Your task to perform on an android device: turn off data saver in the chrome app Image 0: 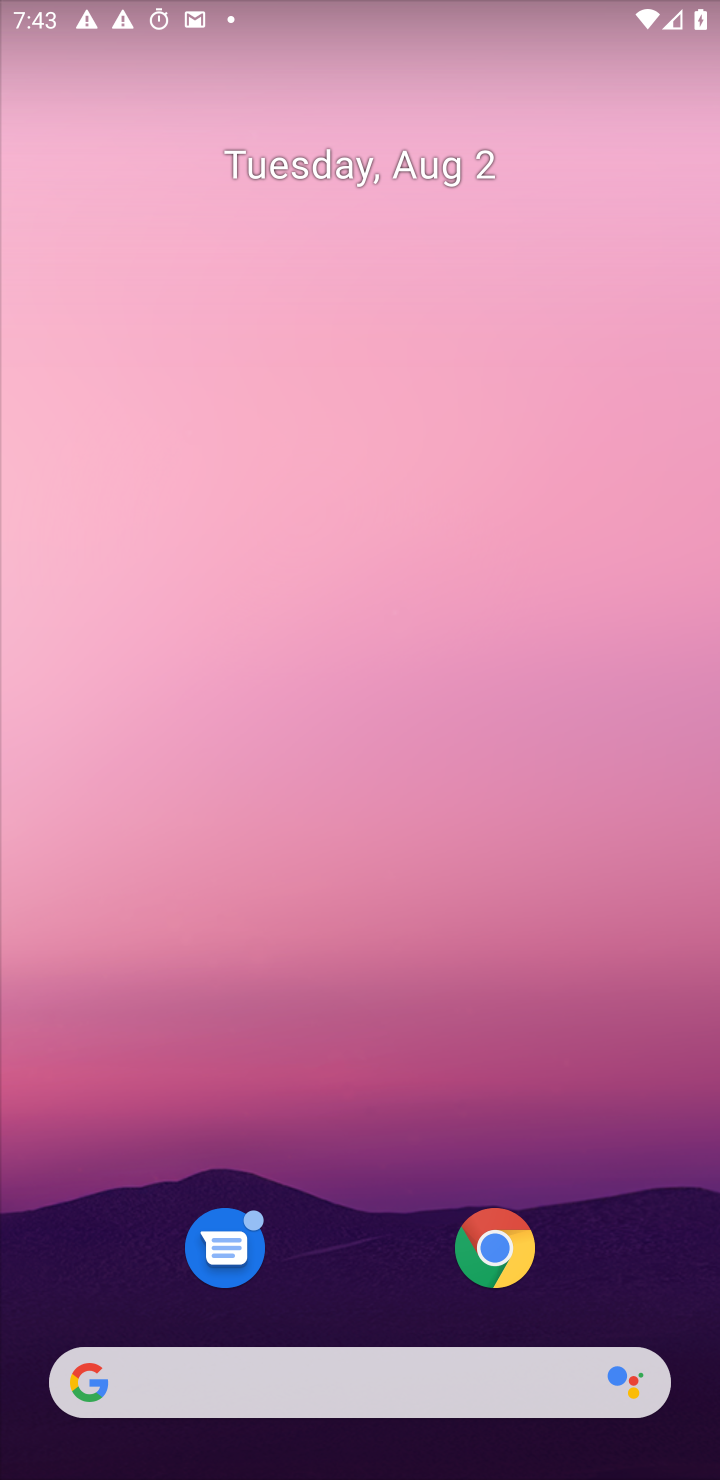
Step 0: press home button
Your task to perform on an android device: turn off data saver in the chrome app Image 1: 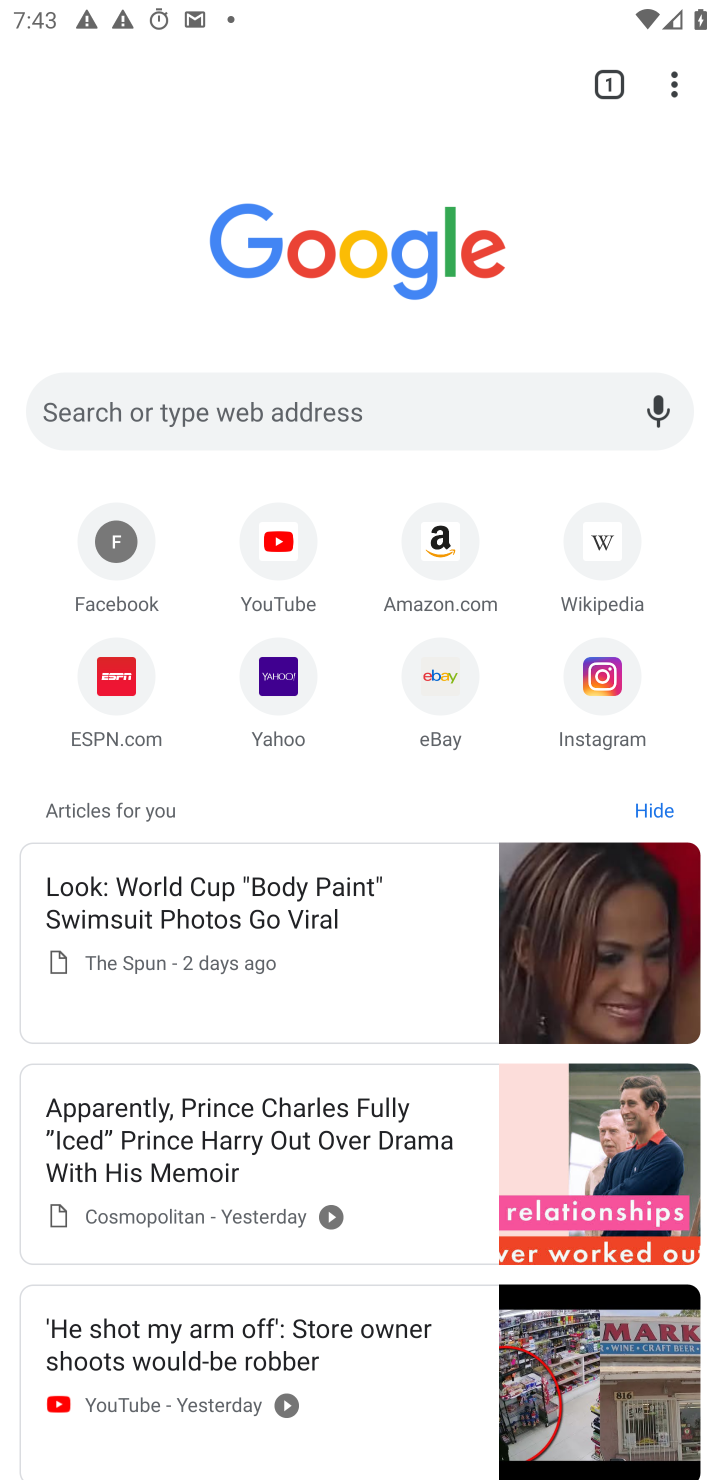
Step 1: drag from (524, 450) to (647, 75)
Your task to perform on an android device: turn off data saver in the chrome app Image 2: 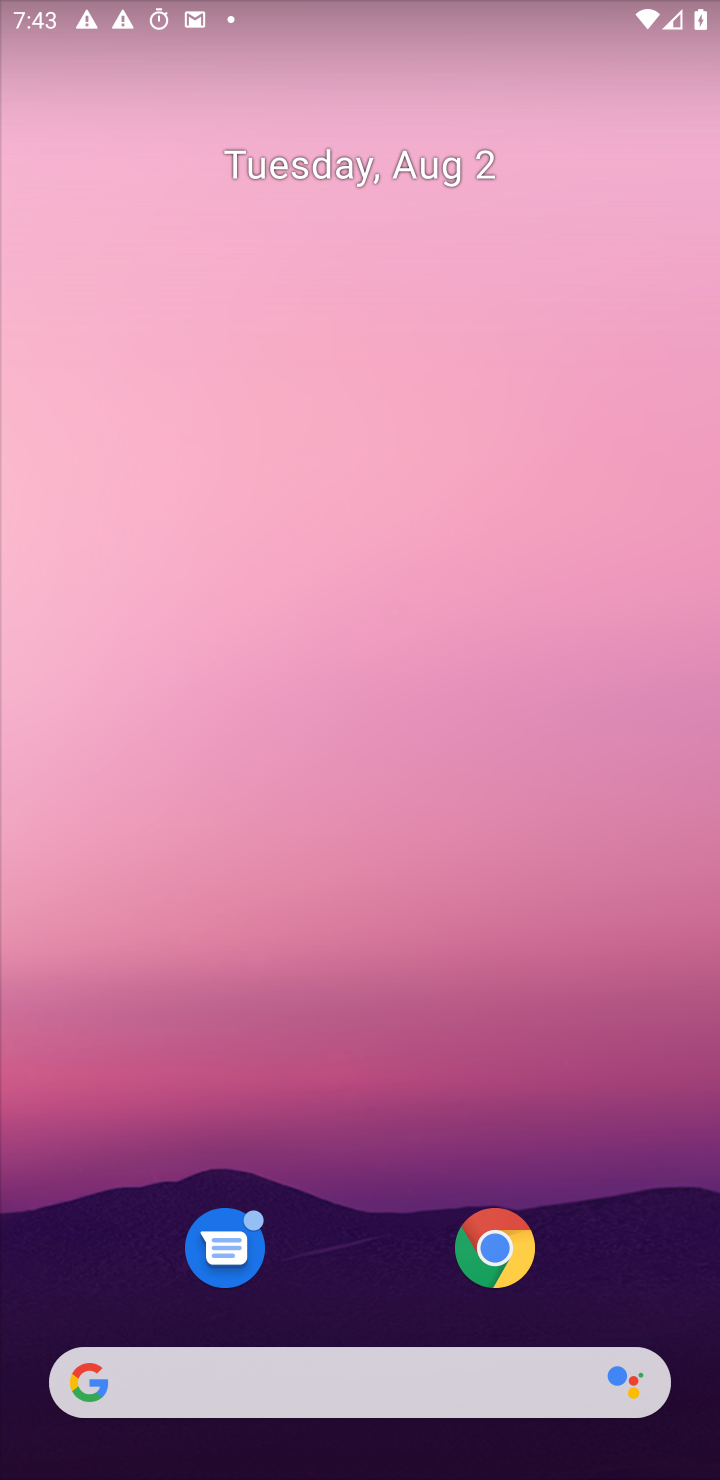
Step 2: drag from (308, 1337) to (409, 150)
Your task to perform on an android device: turn off data saver in the chrome app Image 3: 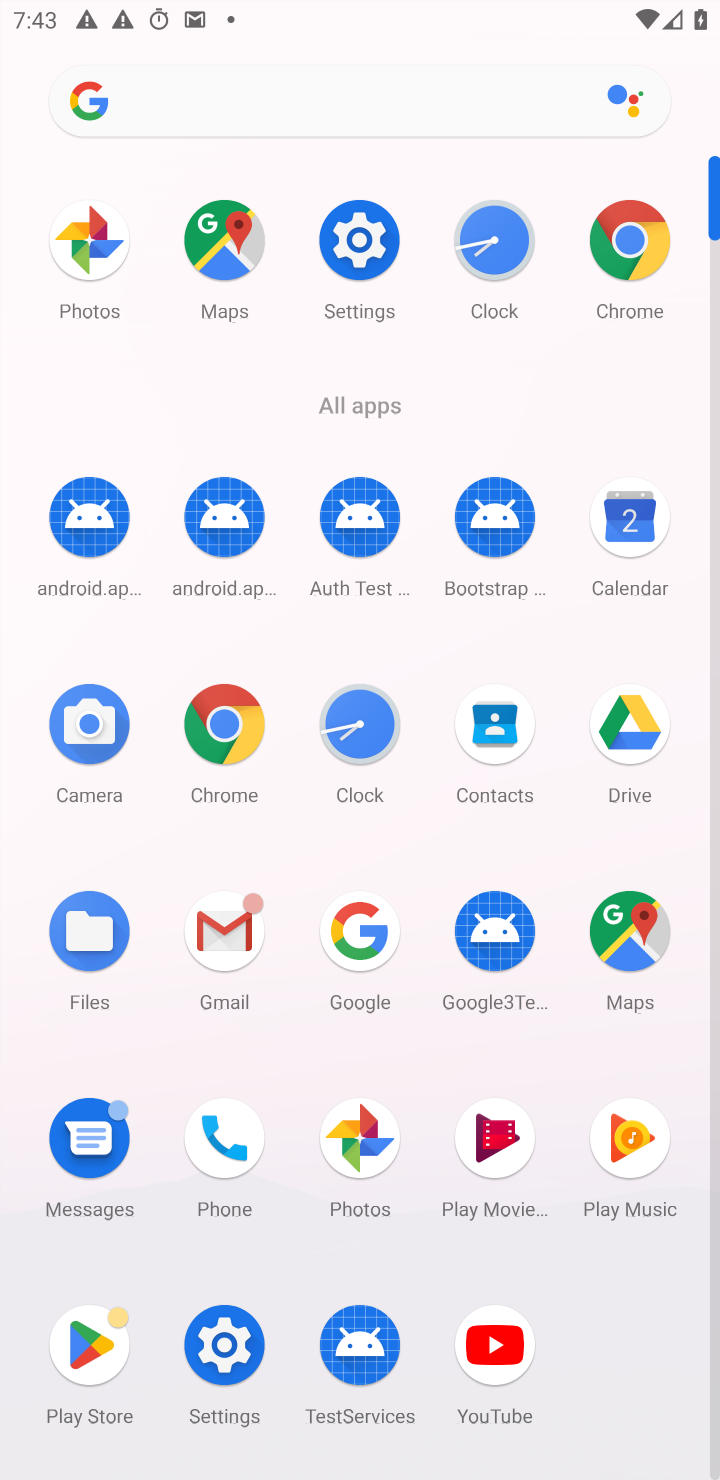
Step 3: click (620, 231)
Your task to perform on an android device: turn off data saver in the chrome app Image 4: 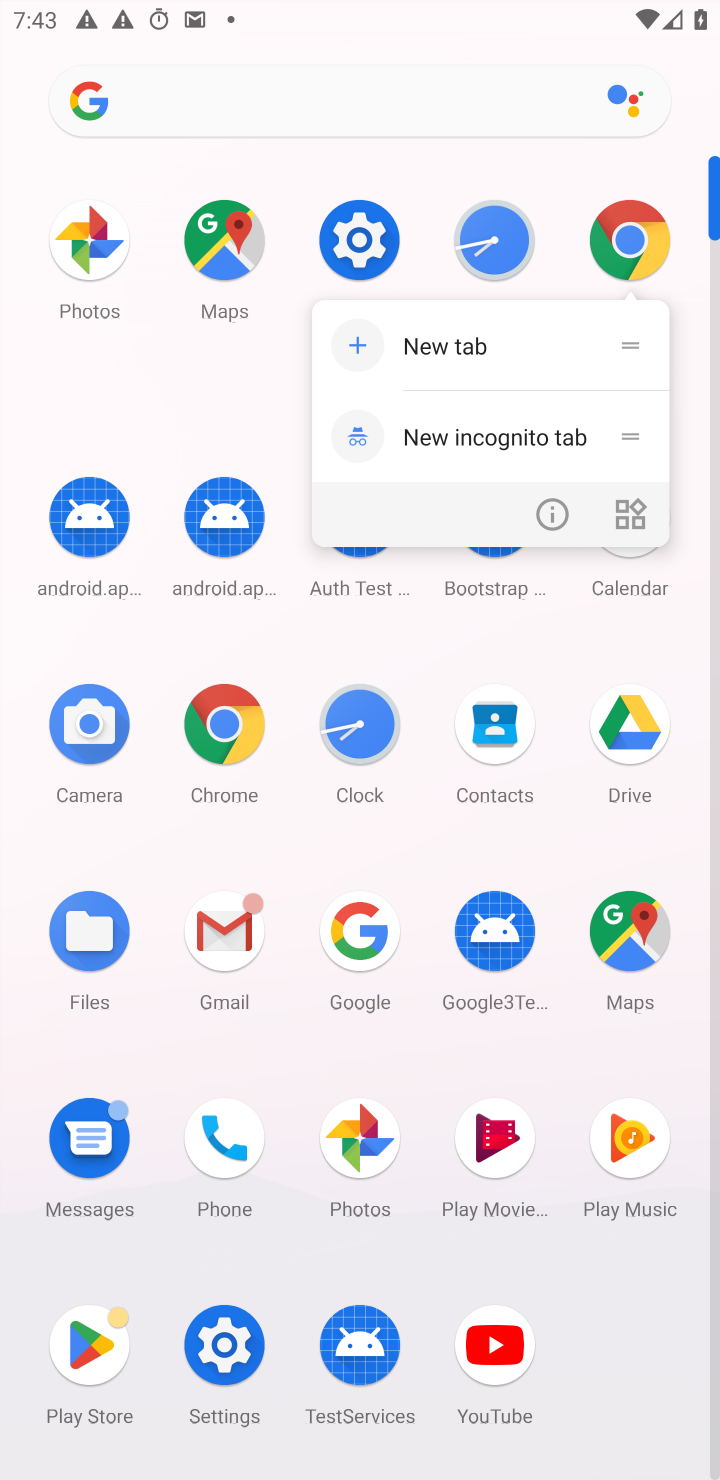
Step 4: click (544, 518)
Your task to perform on an android device: turn off data saver in the chrome app Image 5: 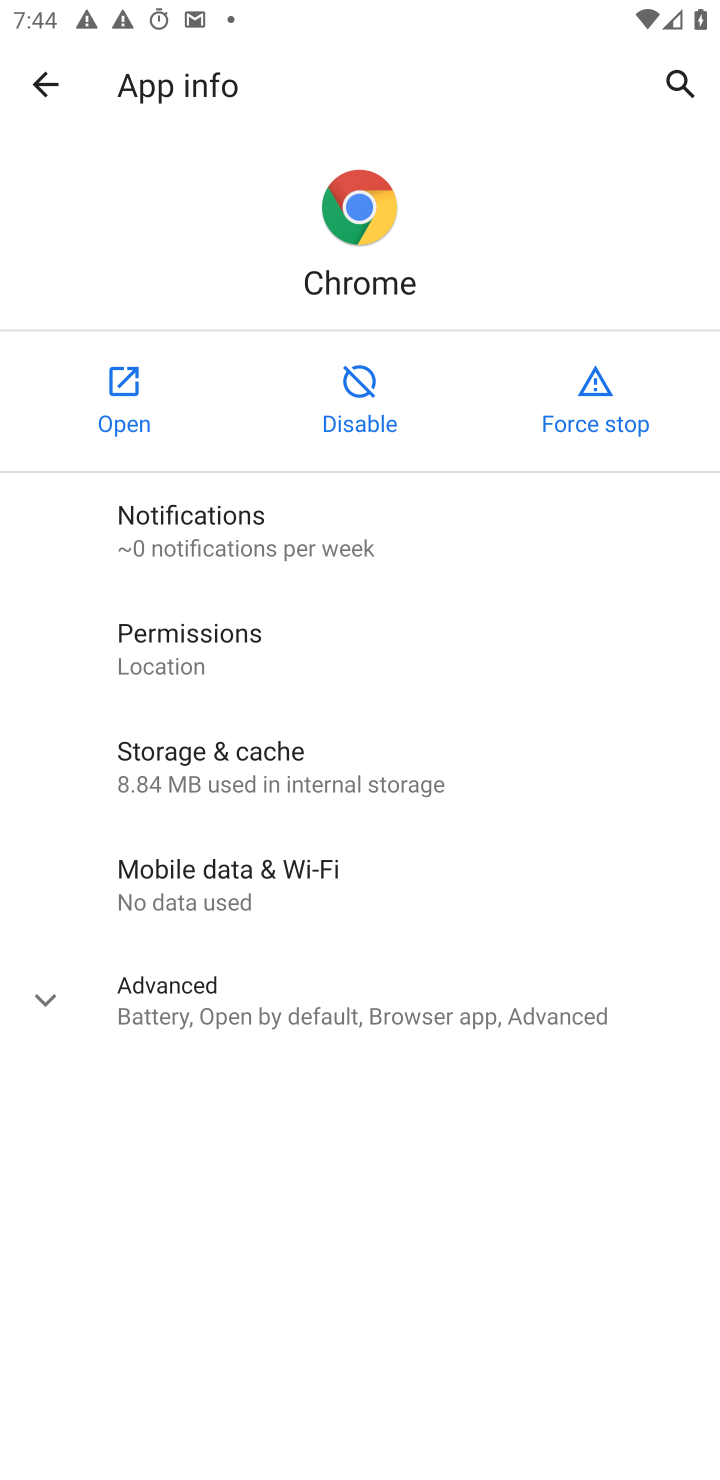
Step 5: click (121, 388)
Your task to perform on an android device: turn off data saver in the chrome app Image 6: 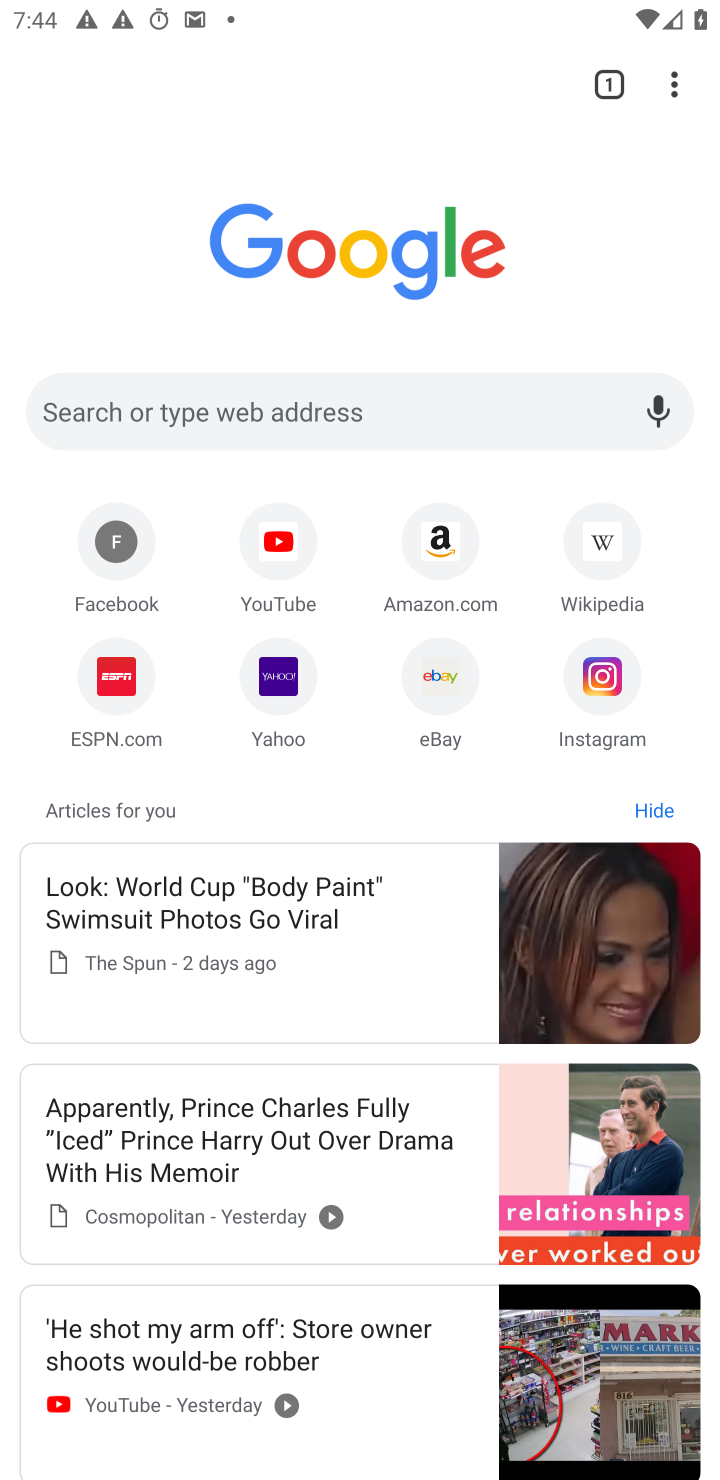
Step 6: drag from (673, 83) to (479, 729)
Your task to perform on an android device: turn off data saver in the chrome app Image 7: 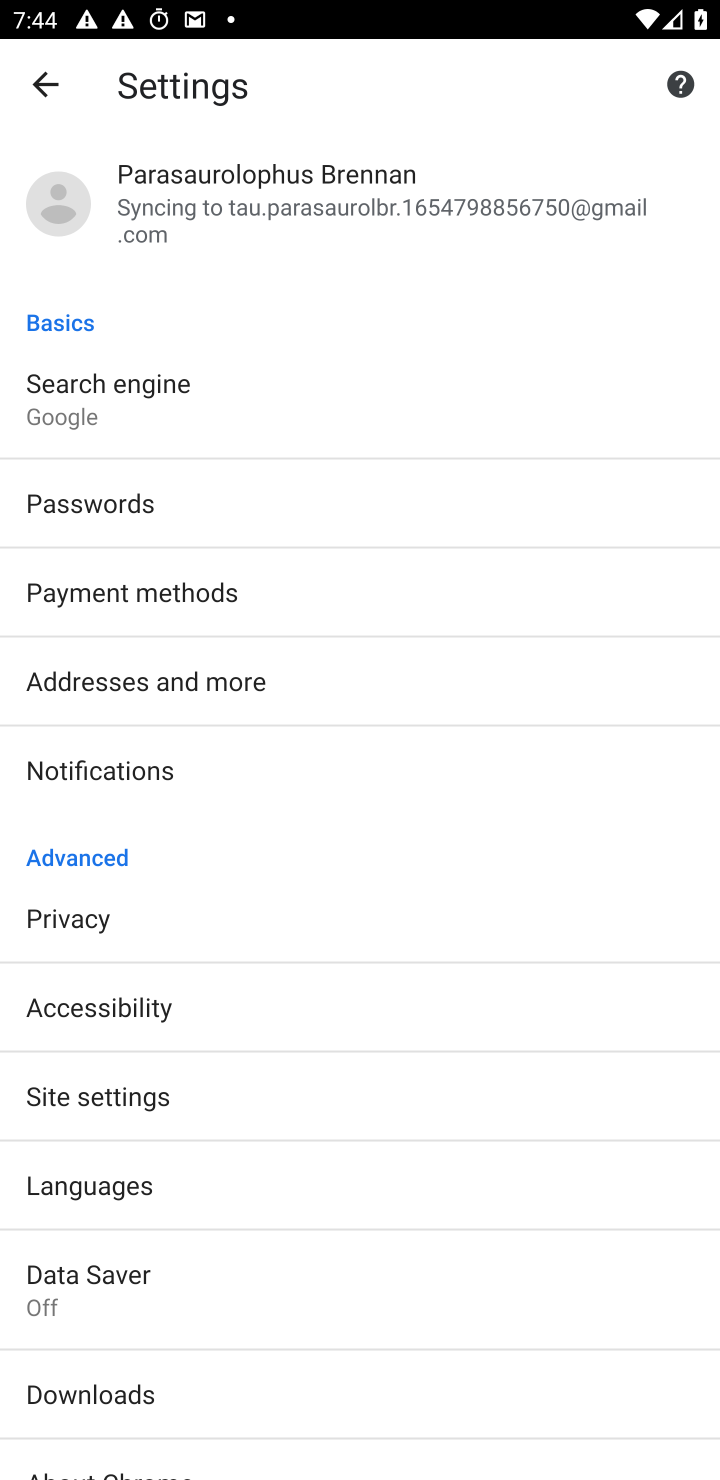
Step 7: drag from (267, 1209) to (355, 79)
Your task to perform on an android device: turn off data saver in the chrome app Image 8: 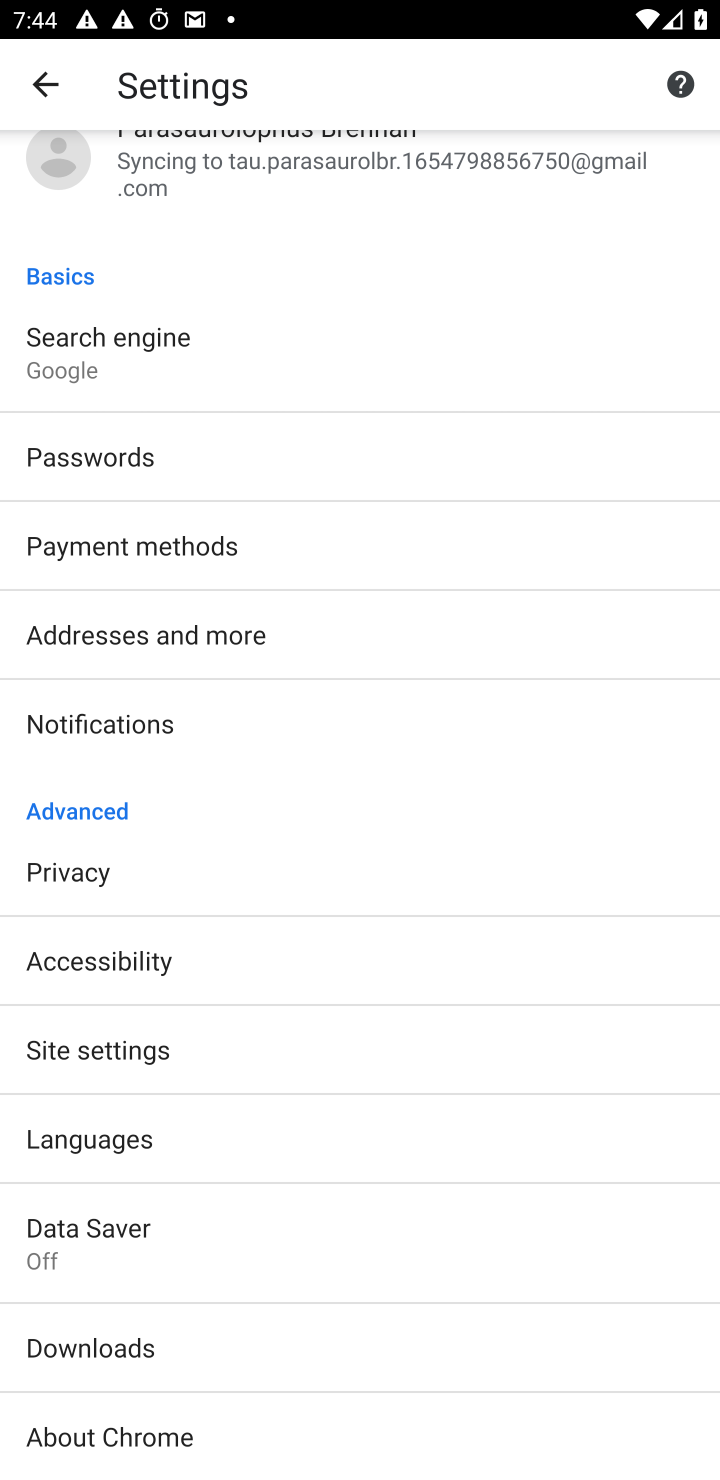
Step 8: click (192, 1261)
Your task to perform on an android device: turn off data saver in the chrome app Image 9: 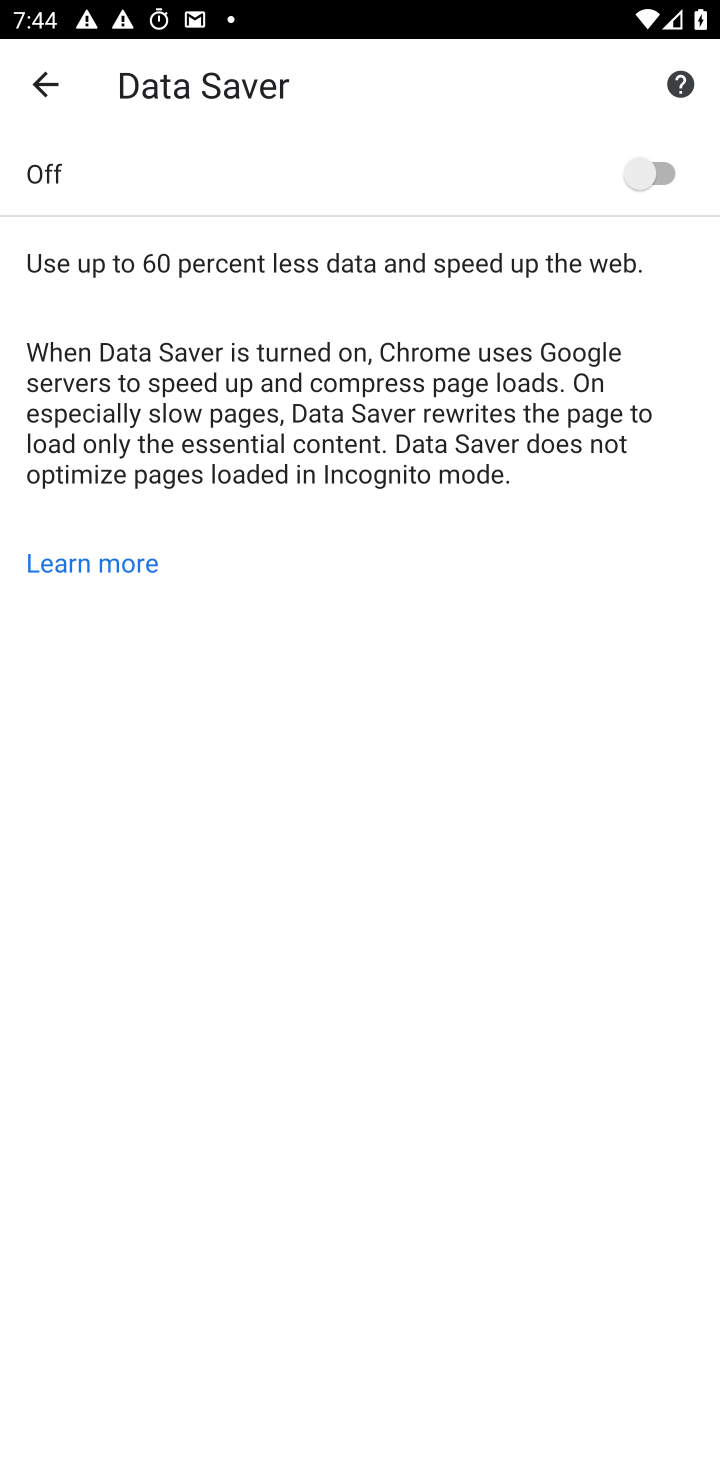
Step 9: task complete